Your task to perform on an android device: Open ESPN.com Image 0: 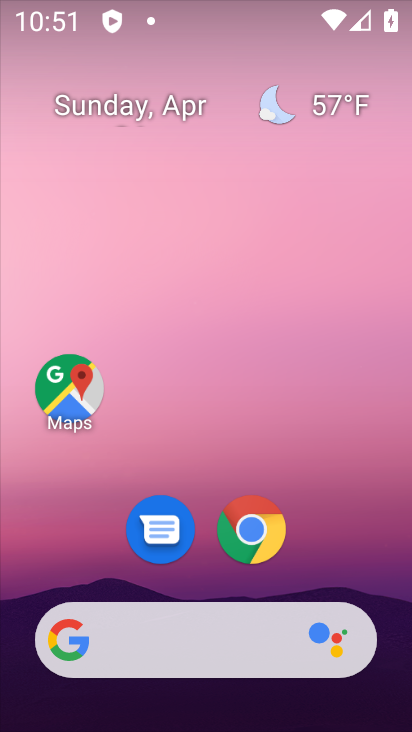
Step 0: click (262, 521)
Your task to perform on an android device: Open ESPN.com Image 1: 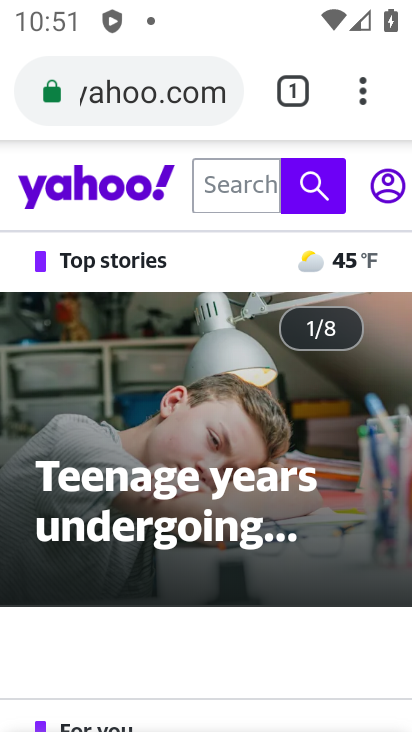
Step 1: click (292, 97)
Your task to perform on an android device: Open ESPN.com Image 2: 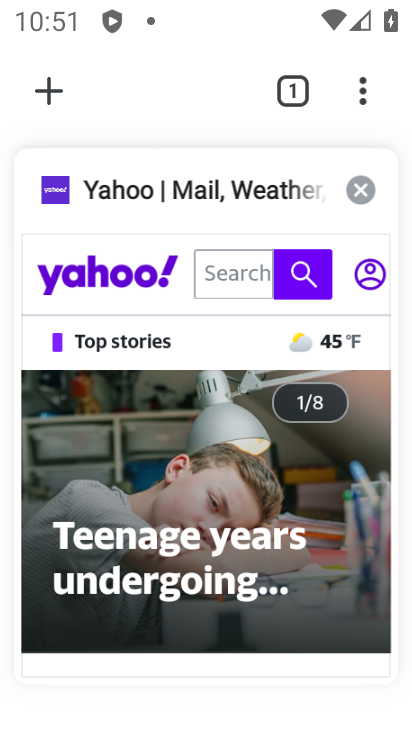
Step 2: click (52, 92)
Your task to perform on an android device: Open ESPN.com Image 3: 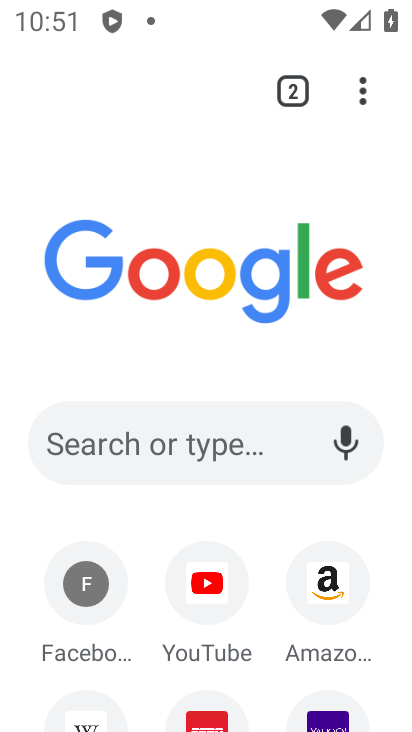
Step 3: drag from (256, 686) to (239, 389)
Your task to perform on an android device: Open ESPN.com Image 4: 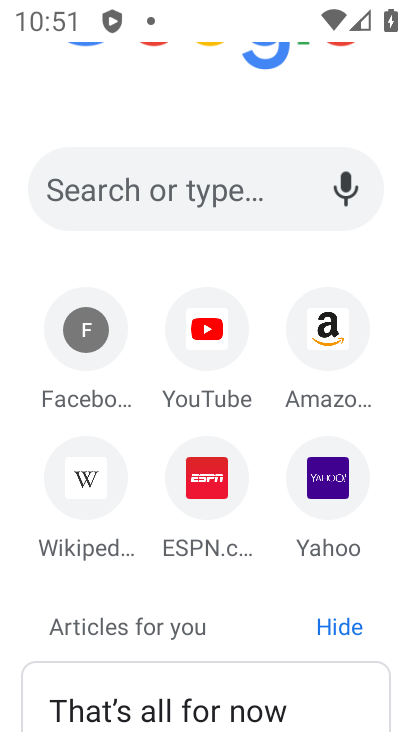
Step 4: click (207, 487)
Your task to perform on an android device: Open ESPN.com Image 5: 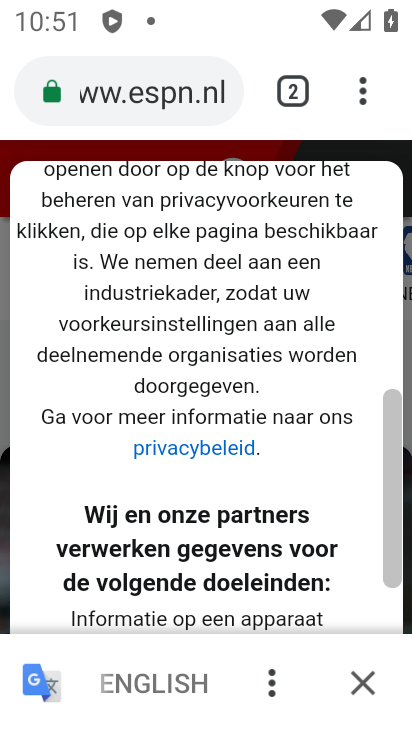
Step 5: task complete